Your task to perform on an android device: Open the calendar app, open the side menu, and click the "Day" option Image 0: 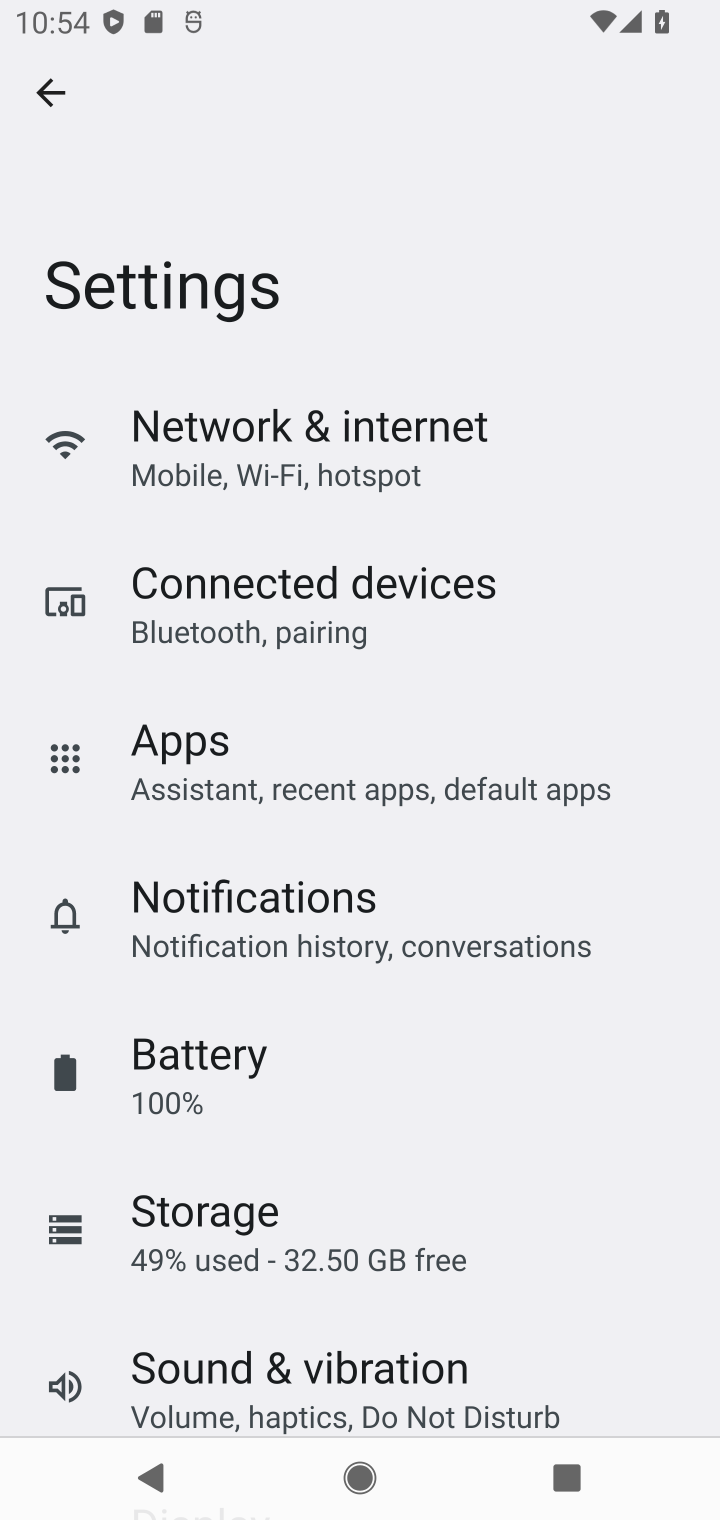
Step 0: press home button
Your task to perform on an android device: Open the calendar app, open the side menu, and click the "Day" option Image 1: 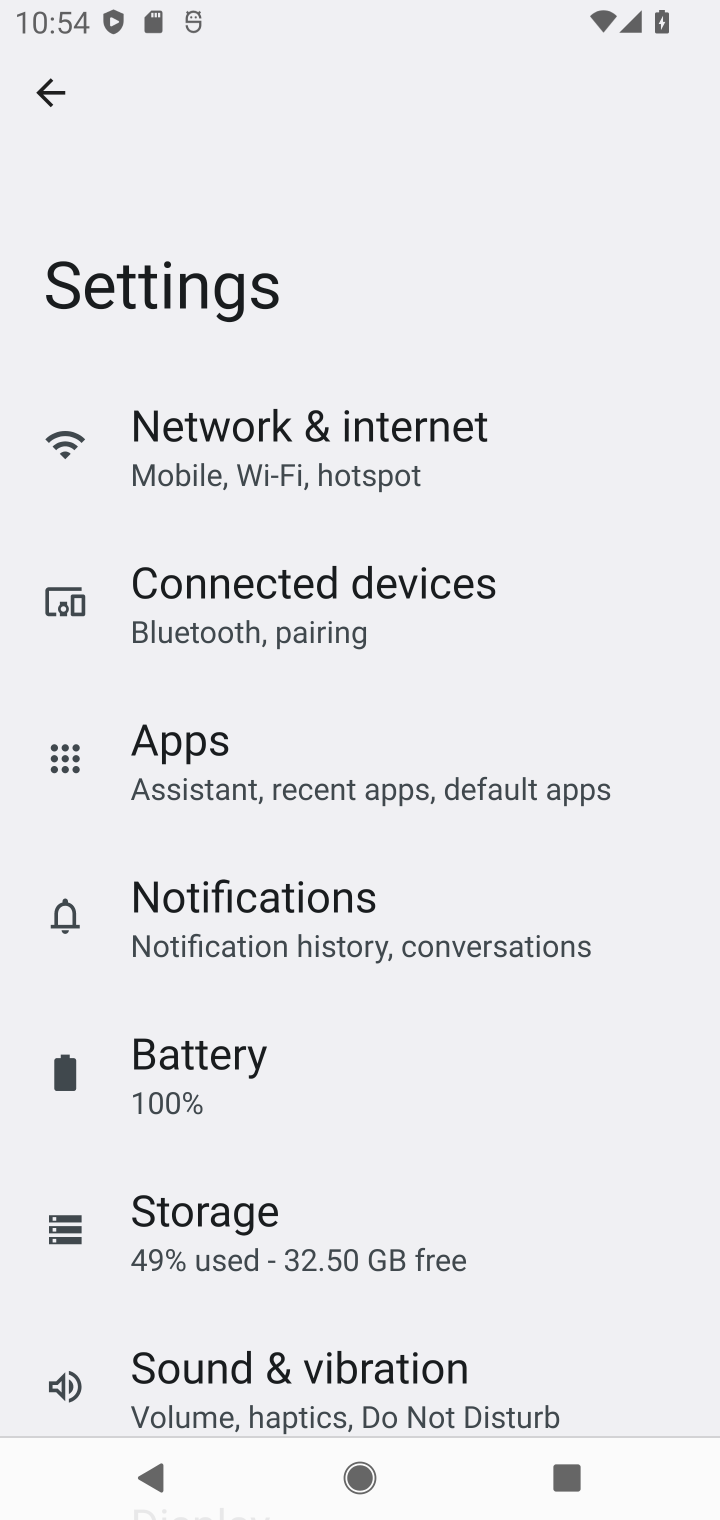
Step 1: press home button
Your task to perform on an android device: Open the calendar app, open the side menu, and click the "Day" option Image 2: 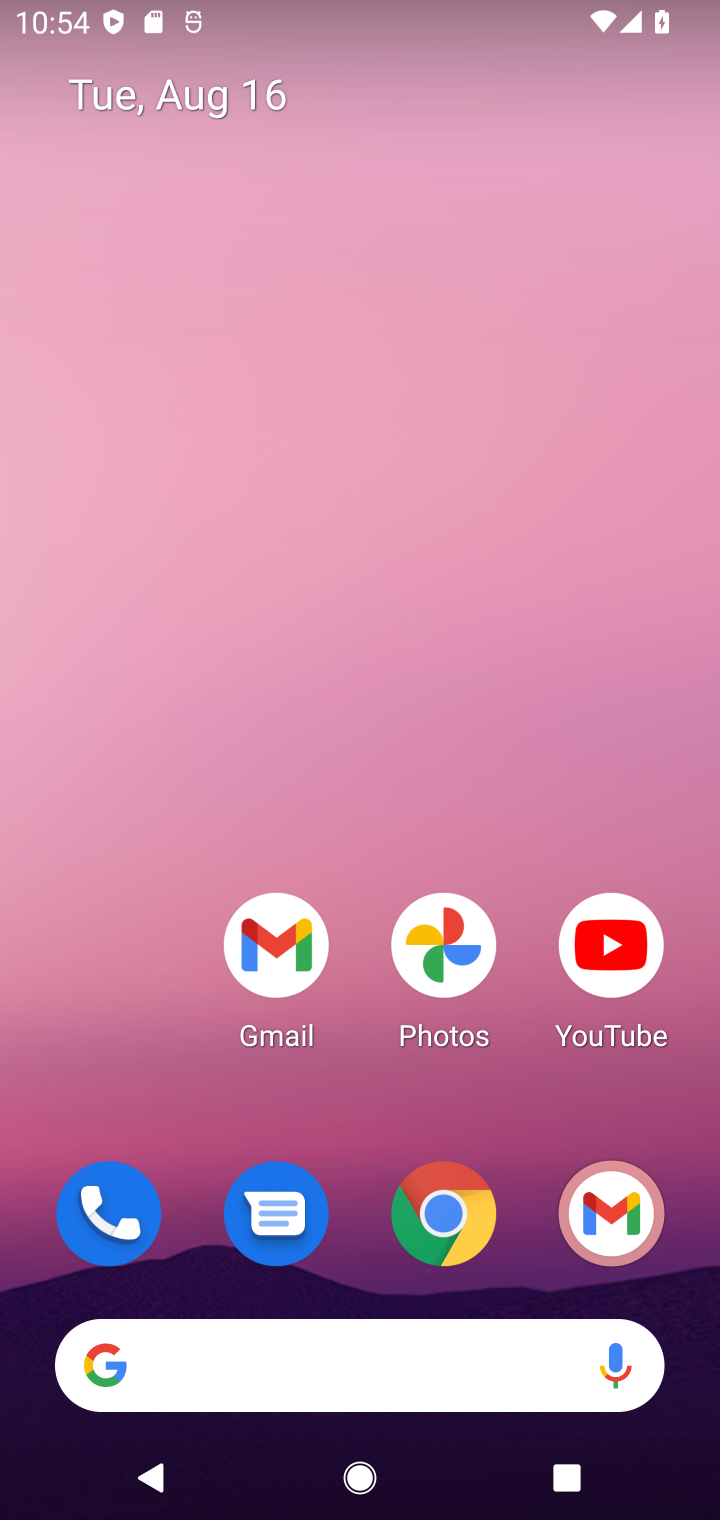
Step 2: drag from (362, 321) to (403, 33)
Your task to perform on an android device: Open the calendar app, open the side menu, and click the "Day" option Image 3: 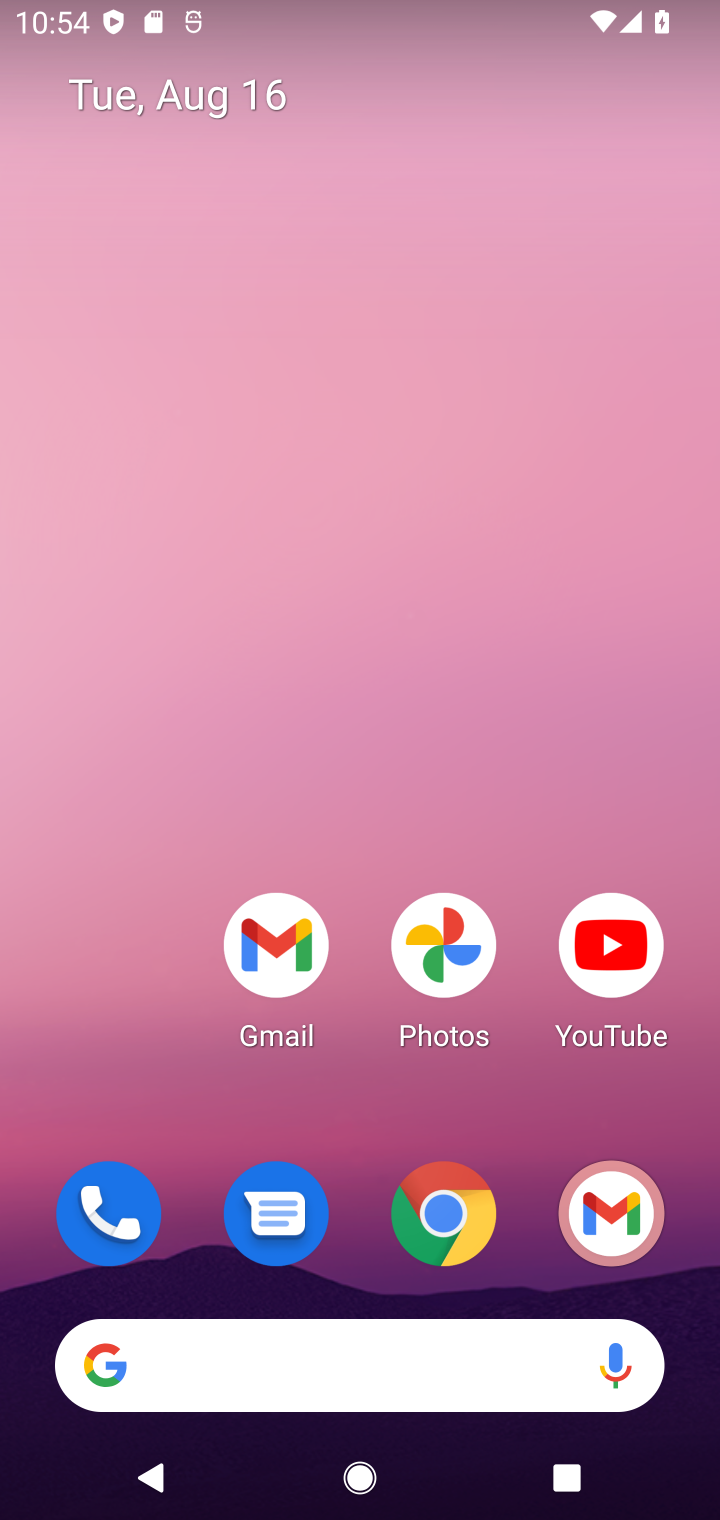
Step 3: drag from (172, 513) to (277, 61)
Your task to perform on an android device: Open the calendar app, open the side menu, and click the "Day" option Image 4: 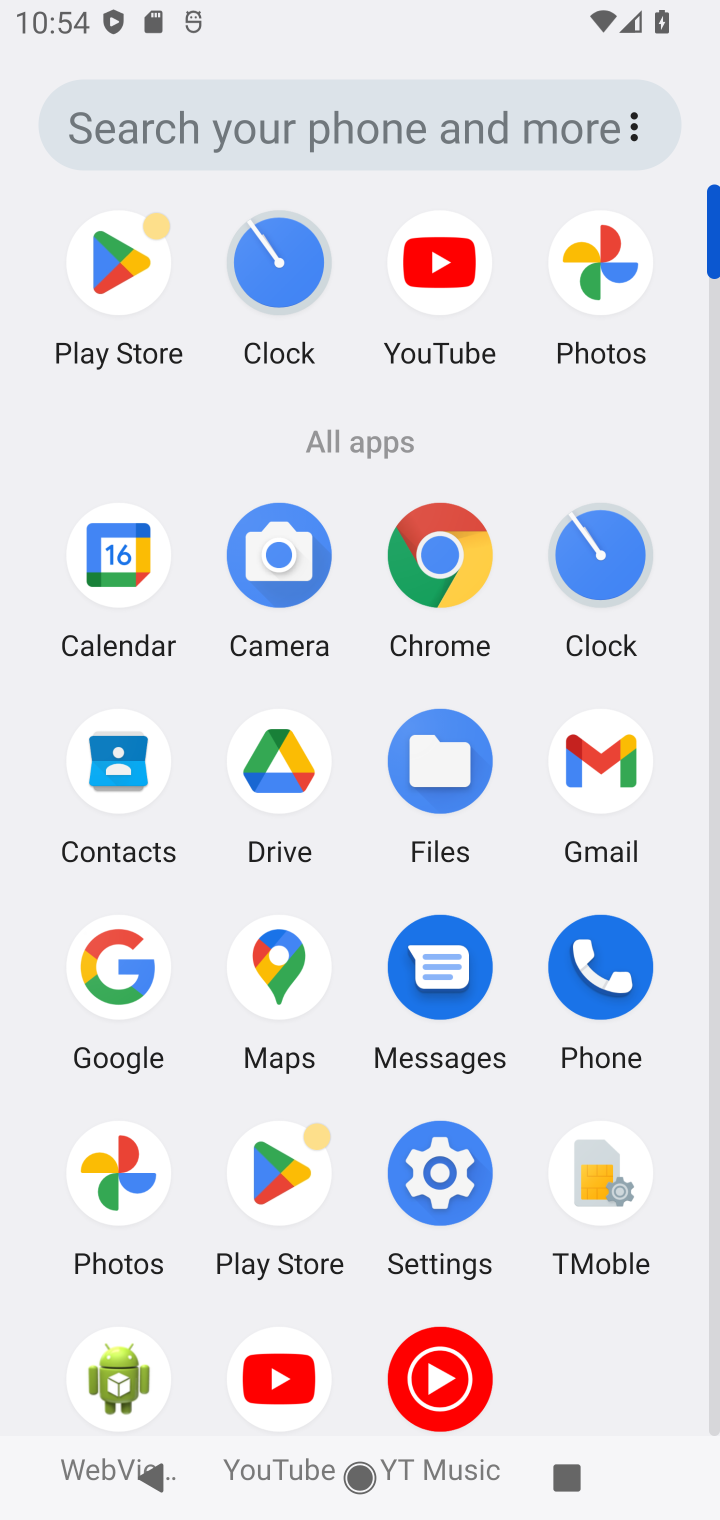
Step 4: click (99, 555)
Your task to perform on an android device: Open the calendar app, open the side menu, and click the "Day" option Image 5: 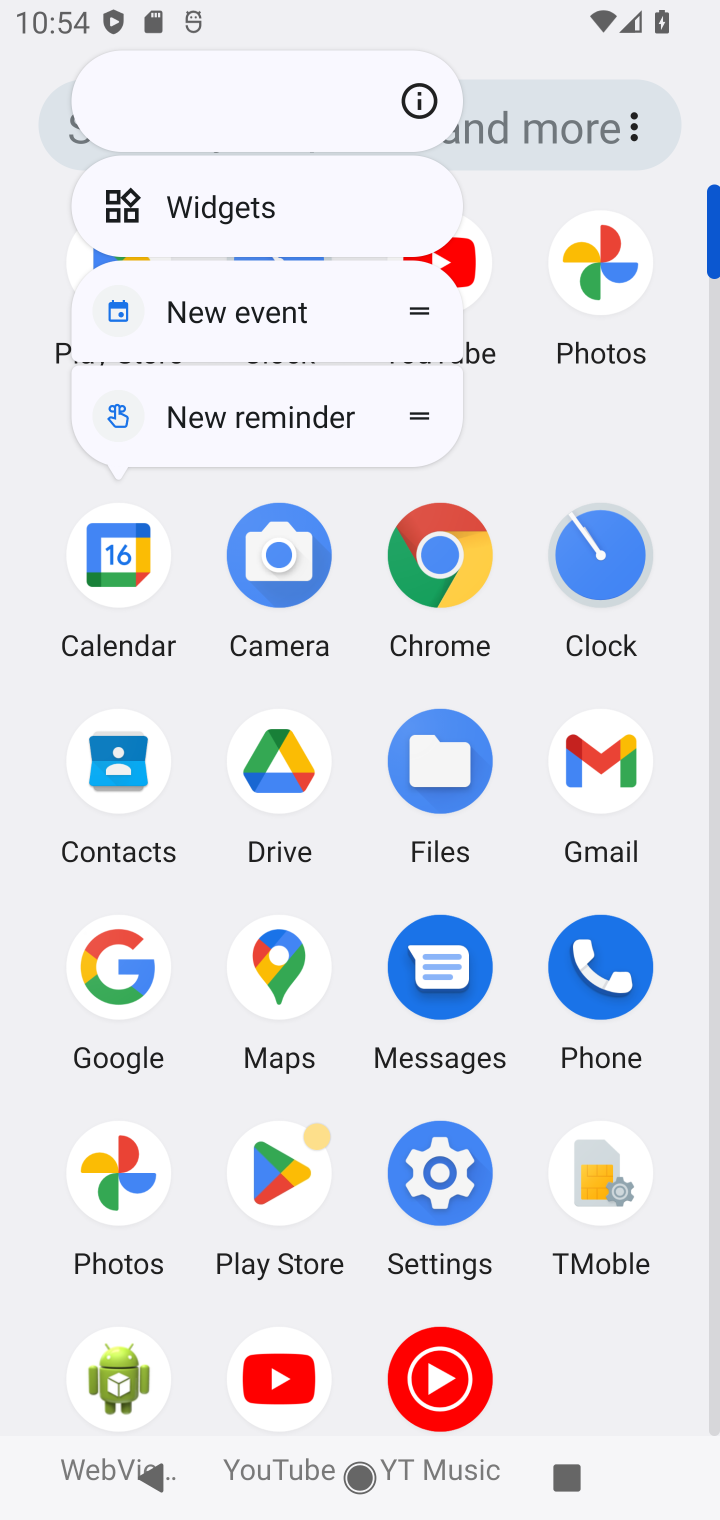
Step 5: click (107, 565)
Your task to perform on an android device: Open the calendar app, open the side menu, and click the "Day" option Image 6: 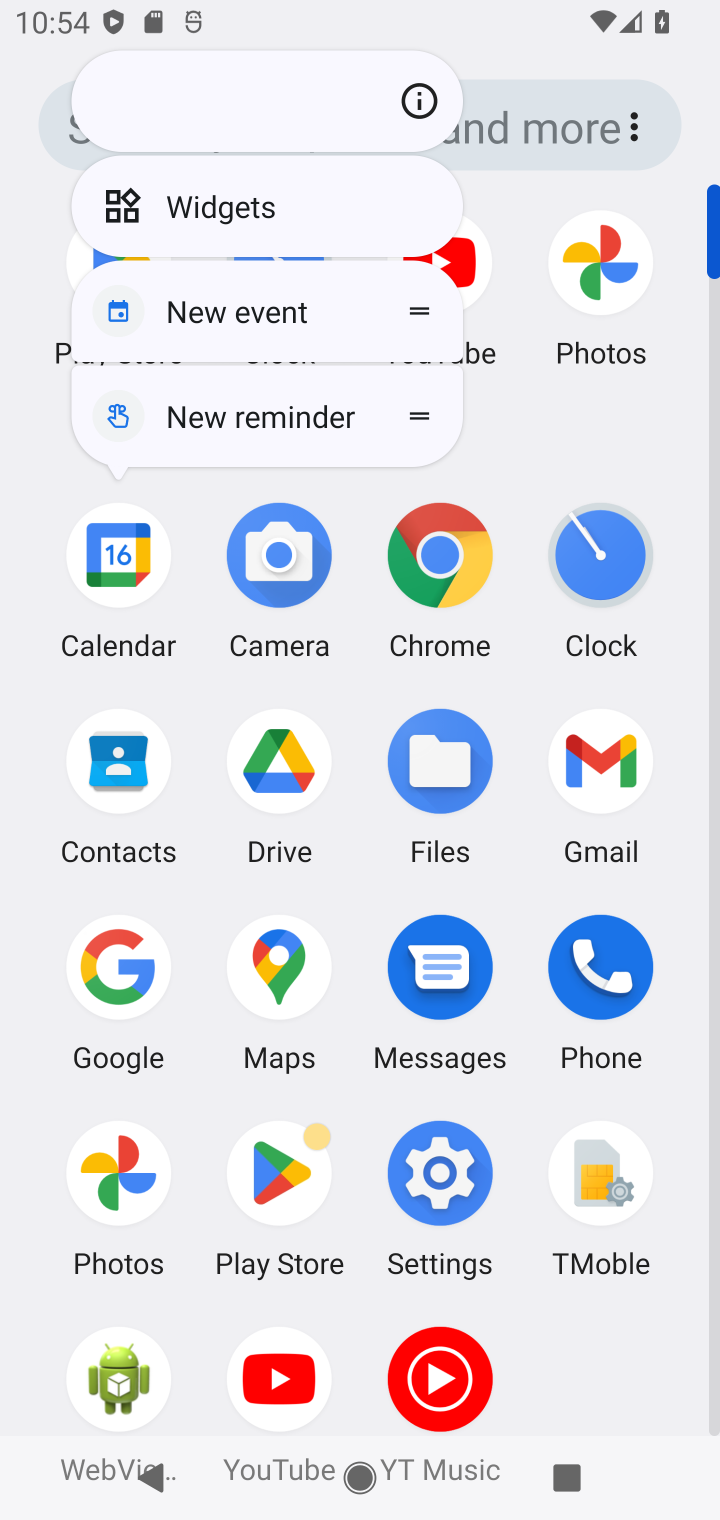
Step 6: click (109, 565)
Your task to perform on an android device: Open the calendar app, open the side menu, and click the "Day" option Image 7: 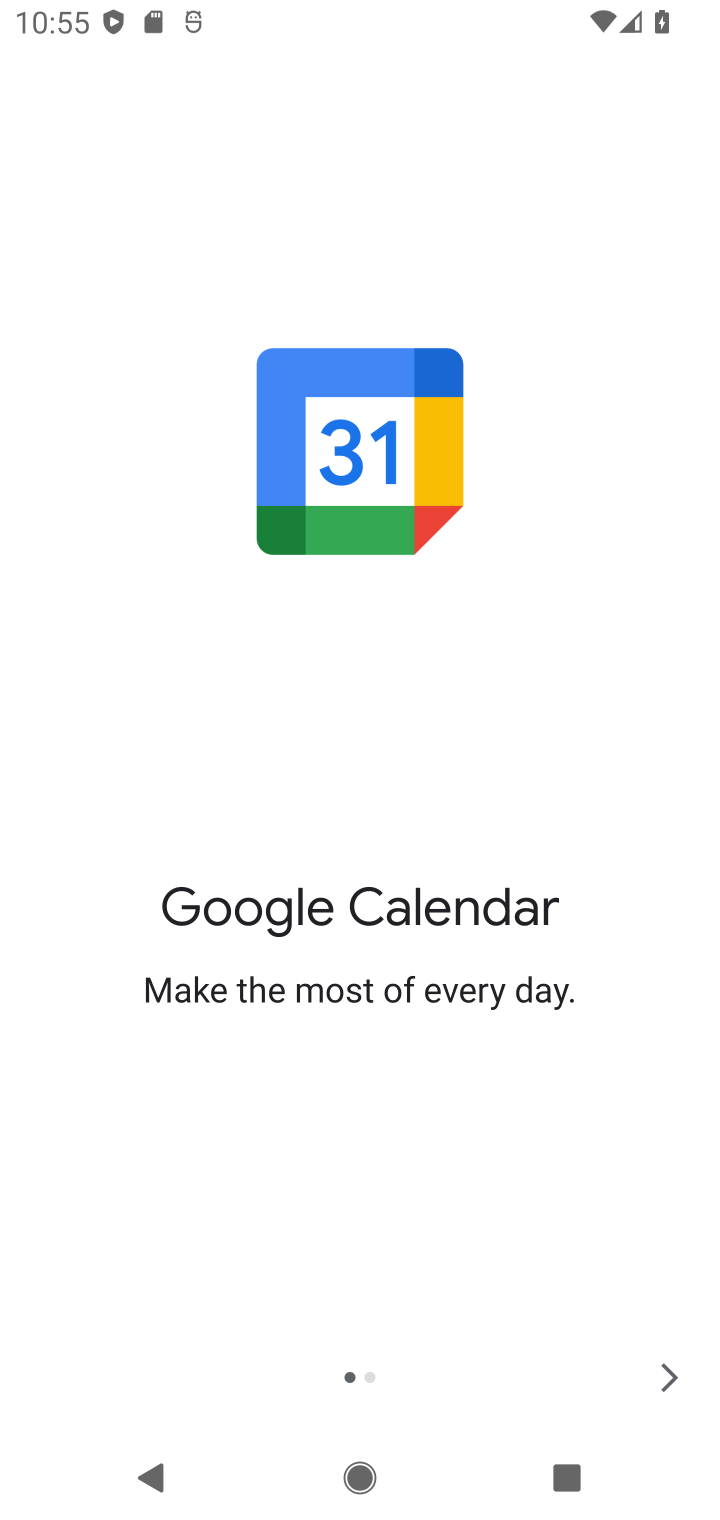
Step 7: click (673, 1369)
Your task to perform on an android device: Open the calendar app, open the side menu, and click the "Day" option Image 8: 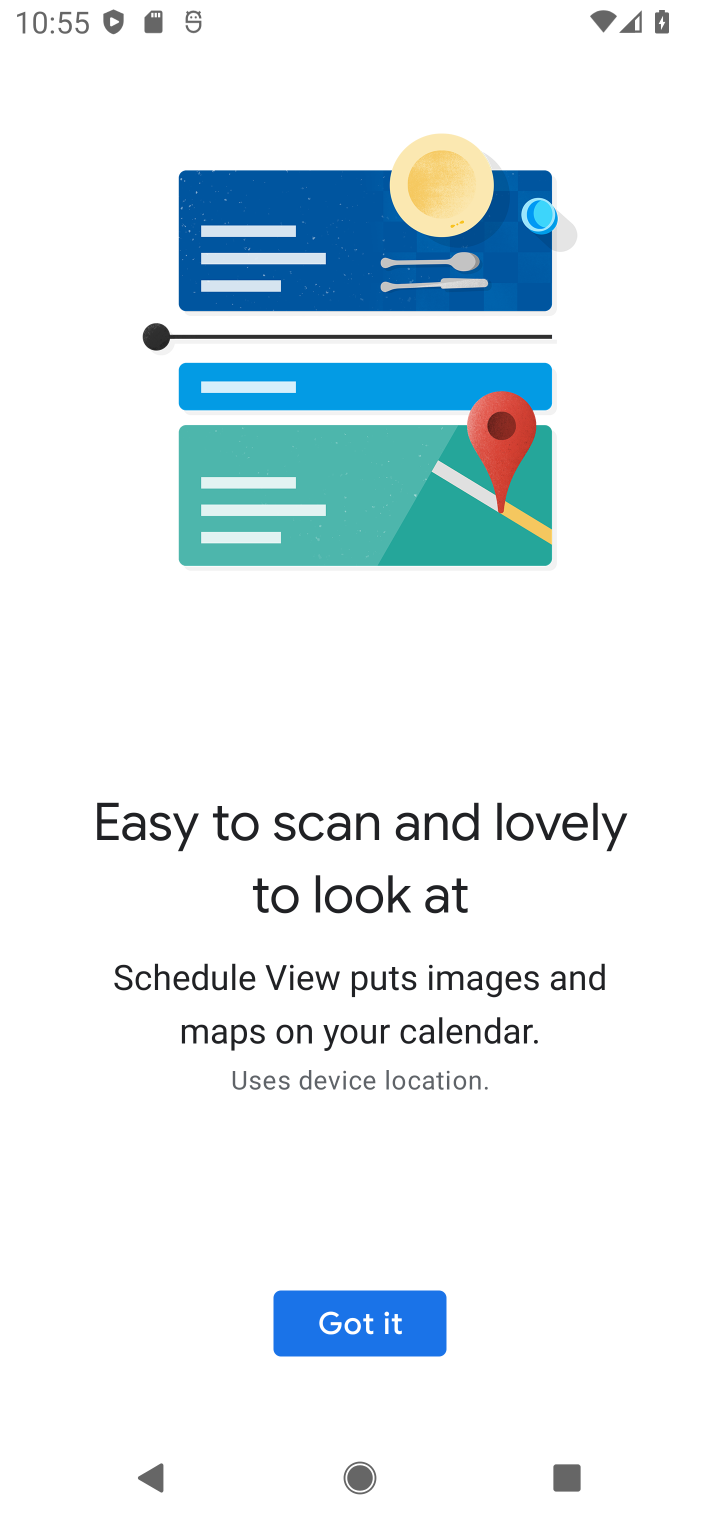
Step 8: click (379, 1323)
Your task to perform on an android device: Open the calendar app, open the side menu, and click the "Day" option Image 9: 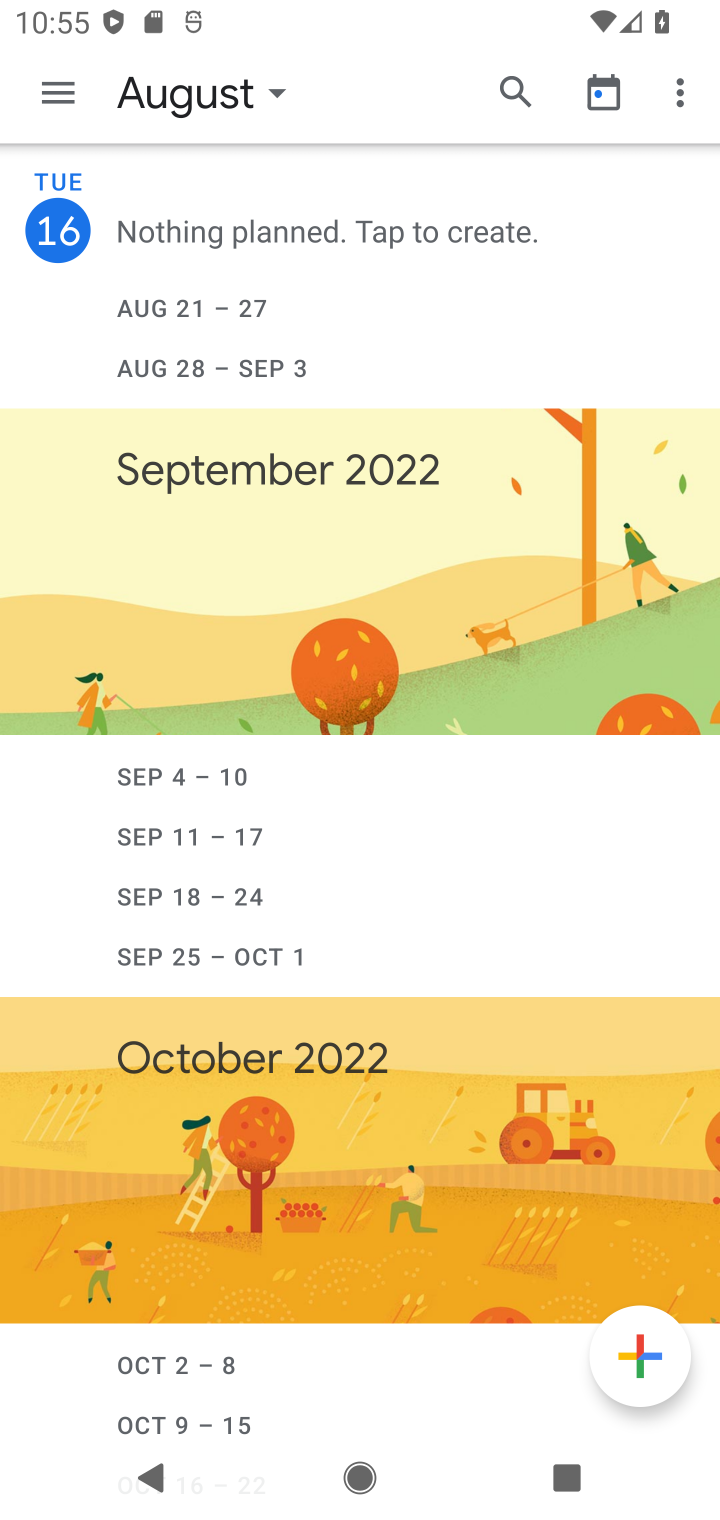
Step 9: click (77, 73)
Your task to perform on an android device: Open the calendar app, open the side menu, and click the "Day" option Image 10: 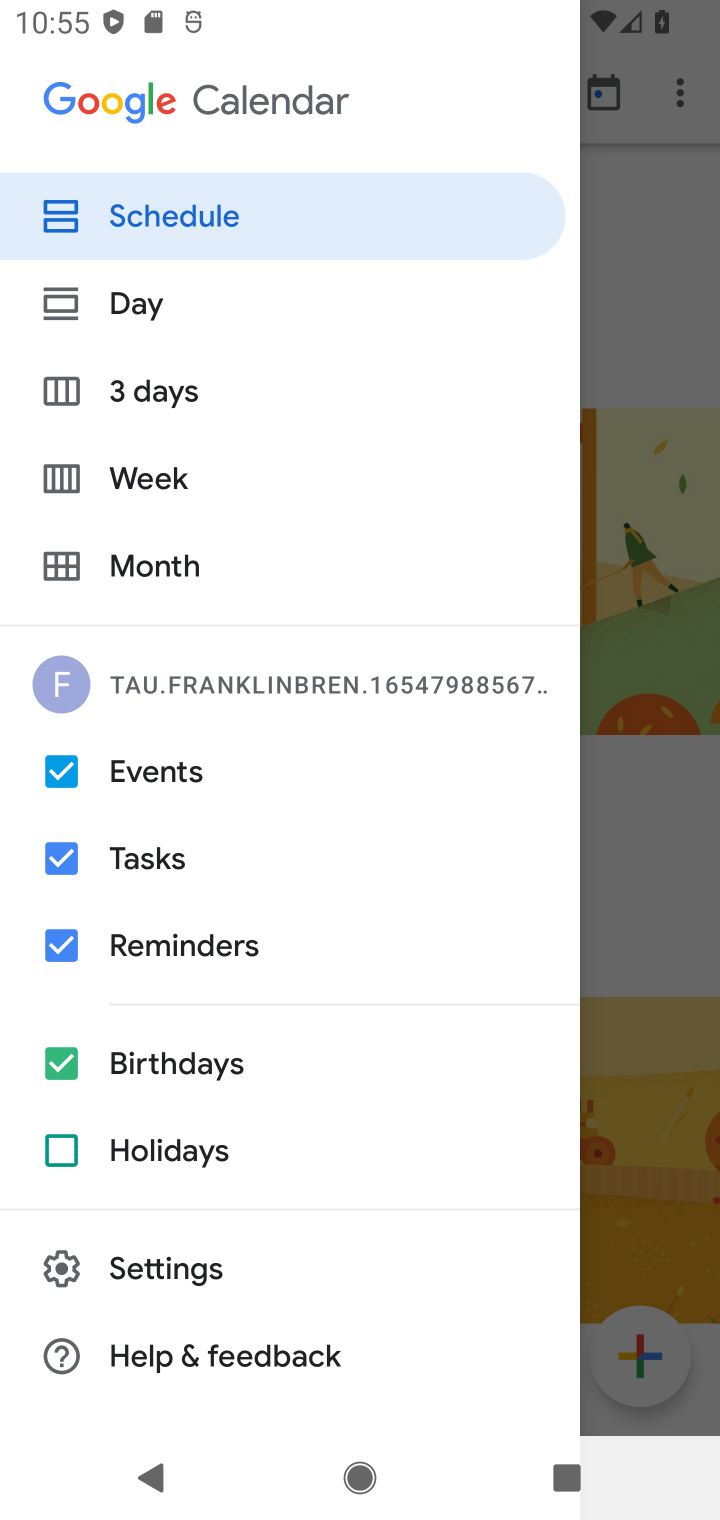
Step 10: click (113, 313)
Your task to perform on an android device: Open the calendar app, open the side menu, and click the "Day" option Image 11: 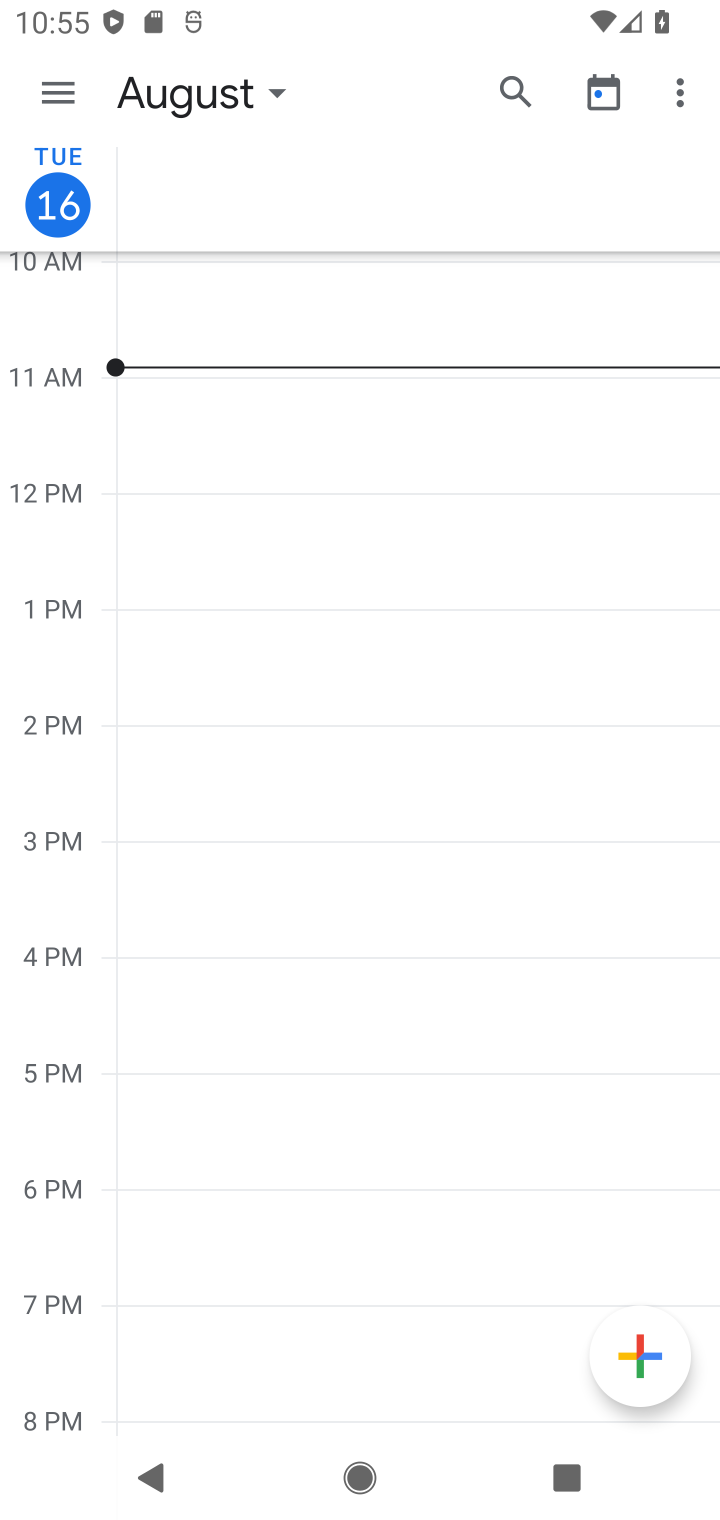
Step 11: task complete